Your task to perform on an android device: change the clock display to show seconds Image 0: 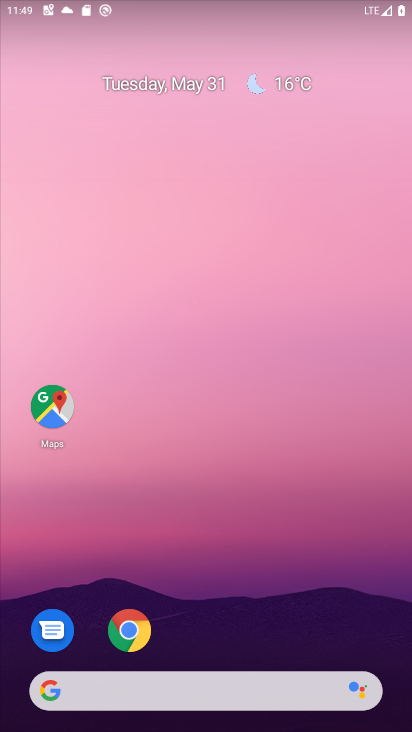
Step 0: drag from (305, 588) to (311, 74)
Your task to perform on an android device: change the clock display to show seconds Image 1: 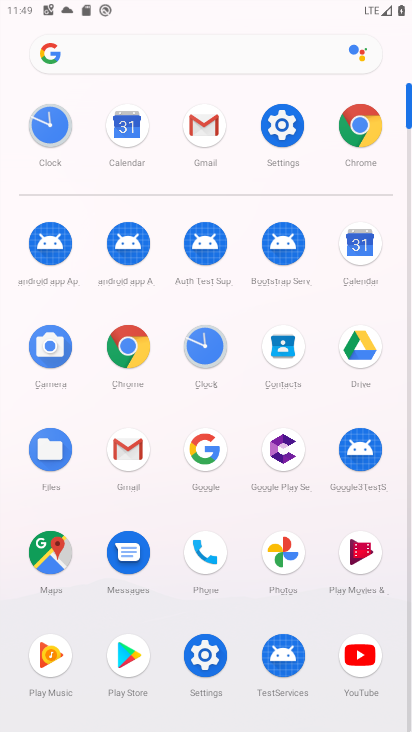
Step 1: click (208, 353)
Your task to perform on an android device: change the clock display to show seconds Image 2: 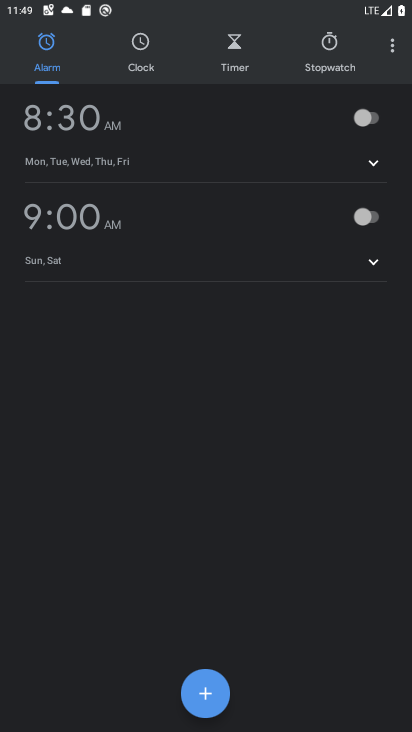
Step 2: click (396, 43)
Your task to perform on an android device: change the clock display to show seconds Image 3: 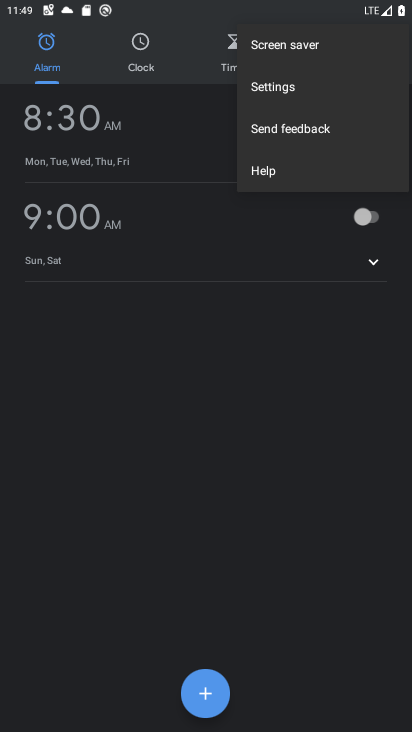
Step 3: click (289, 95)
Your task to perform on an android device: change the clock display to show seconds Image 4: 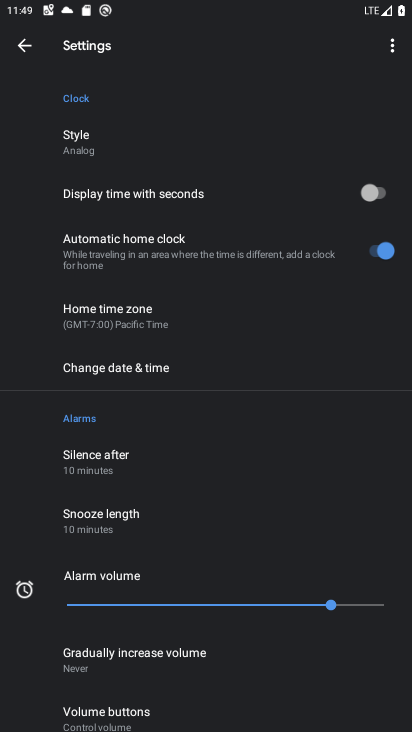
Step 4: click (377, 195)
Your task to perform on an android device: change the clock display to show seconds Image 5: 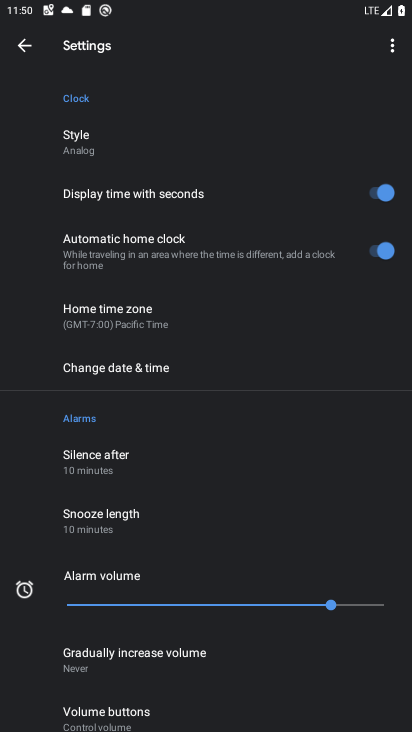
Step 5: task complete